Your task to perform on an android device: change the upload size in google photos Image 0: 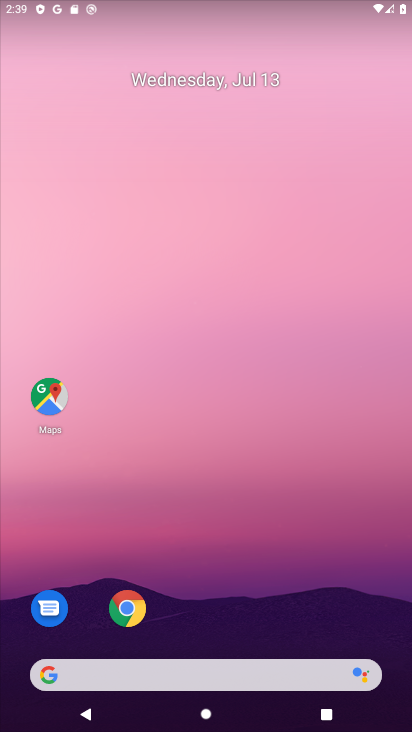
Step 0: drag from (204, 634) to (142, 407)
Your task to perform on an android device: change the upload size in google photos Image 1: 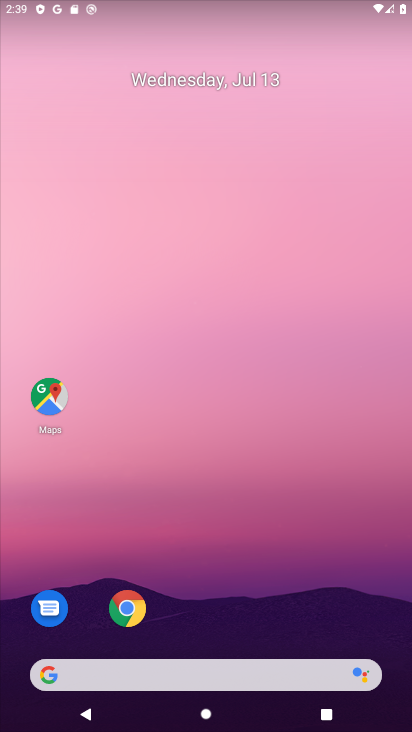
Step 1: drag from (204, 616) to (201, 9)
Your task to perform on an android device: change the upload size in google photos Image 2: 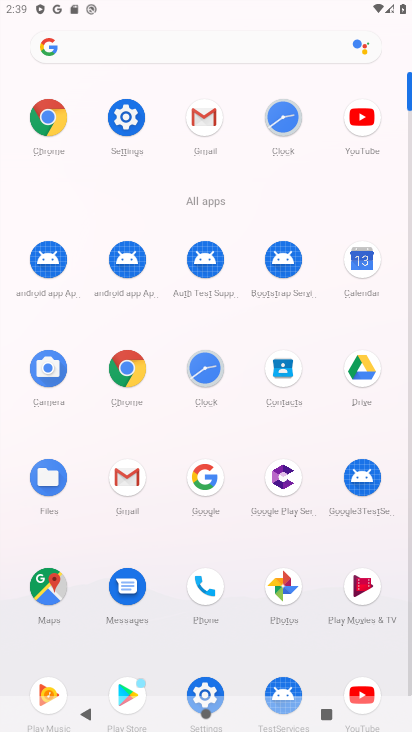
Step 2: click (291, 577)
Your task to perform on an android device: change the upload size in google photos Image 3: 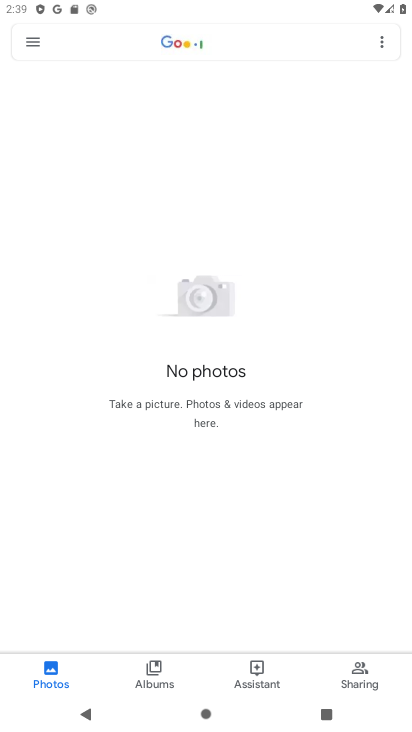
Step 3: click (35, 44)
Your task to perform on an android device: change the upload size in google photos Image 4: 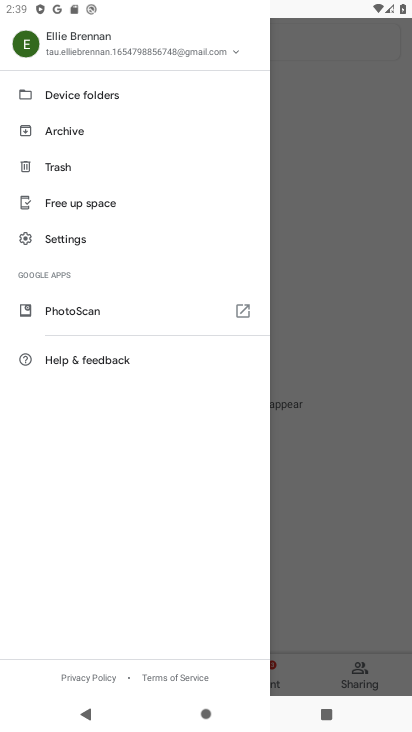
Step 4: click (64, 245)
Your task to perform on an android device: change the upload size in google photos Image 5: 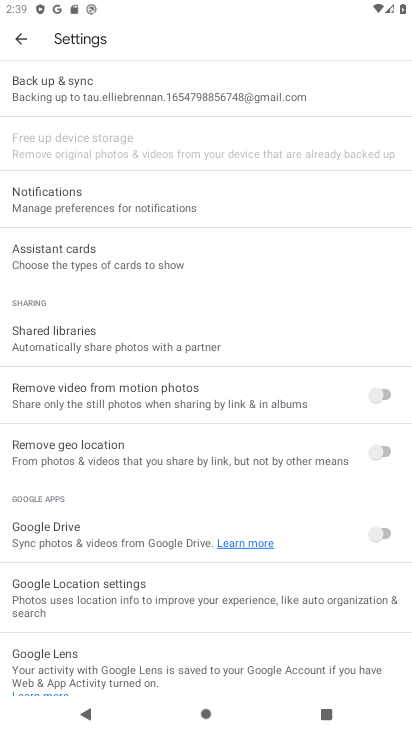
Step 5: click (114, 101)
Your task to perform on an android device: change the upload size in google photos Image 6: 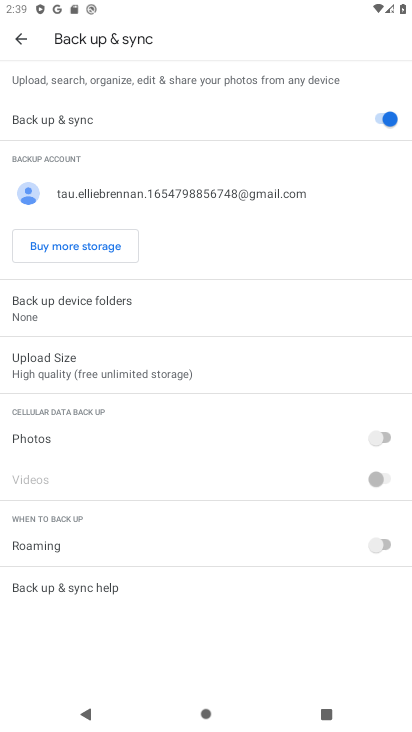
Step 6: click (79, 368)
Your task to perform on an android device: change the upload size in google photos Image 7: 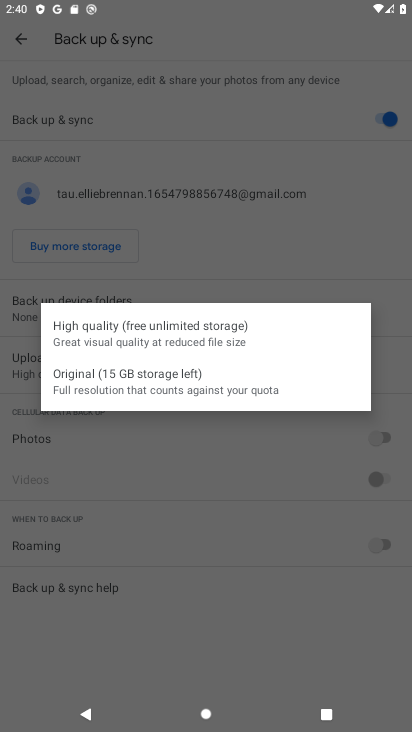
Step 7: click (188, 392)
Your task to perform on an android device: change the upload size in google photos Image 8: 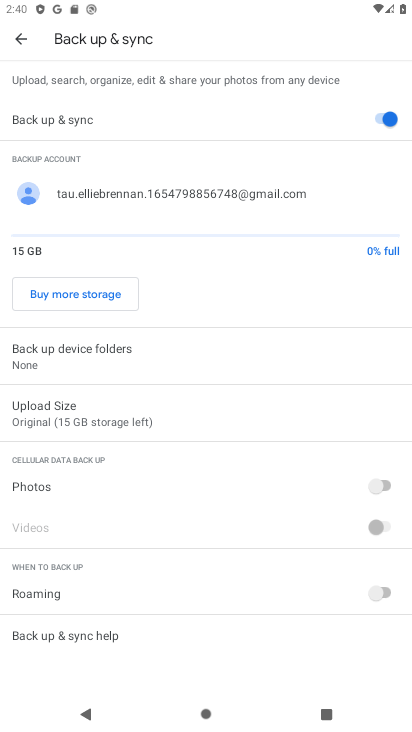
Step 8: task complete